Your task to perform on an android device: Open calendar and show me the second week of next month Image 0: 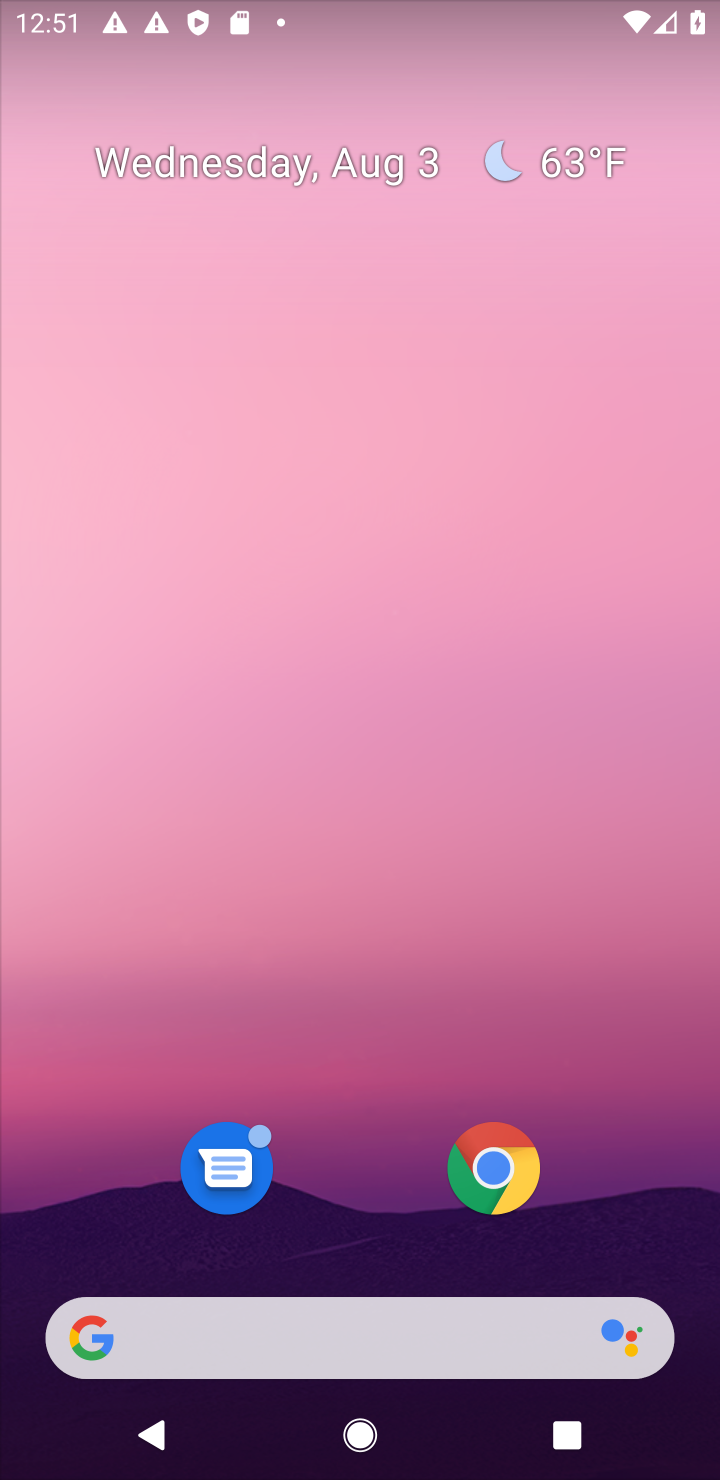
Step 0: press home button
Your task to perform on an android device: Open calendar and show me the second week of next month Image 1: 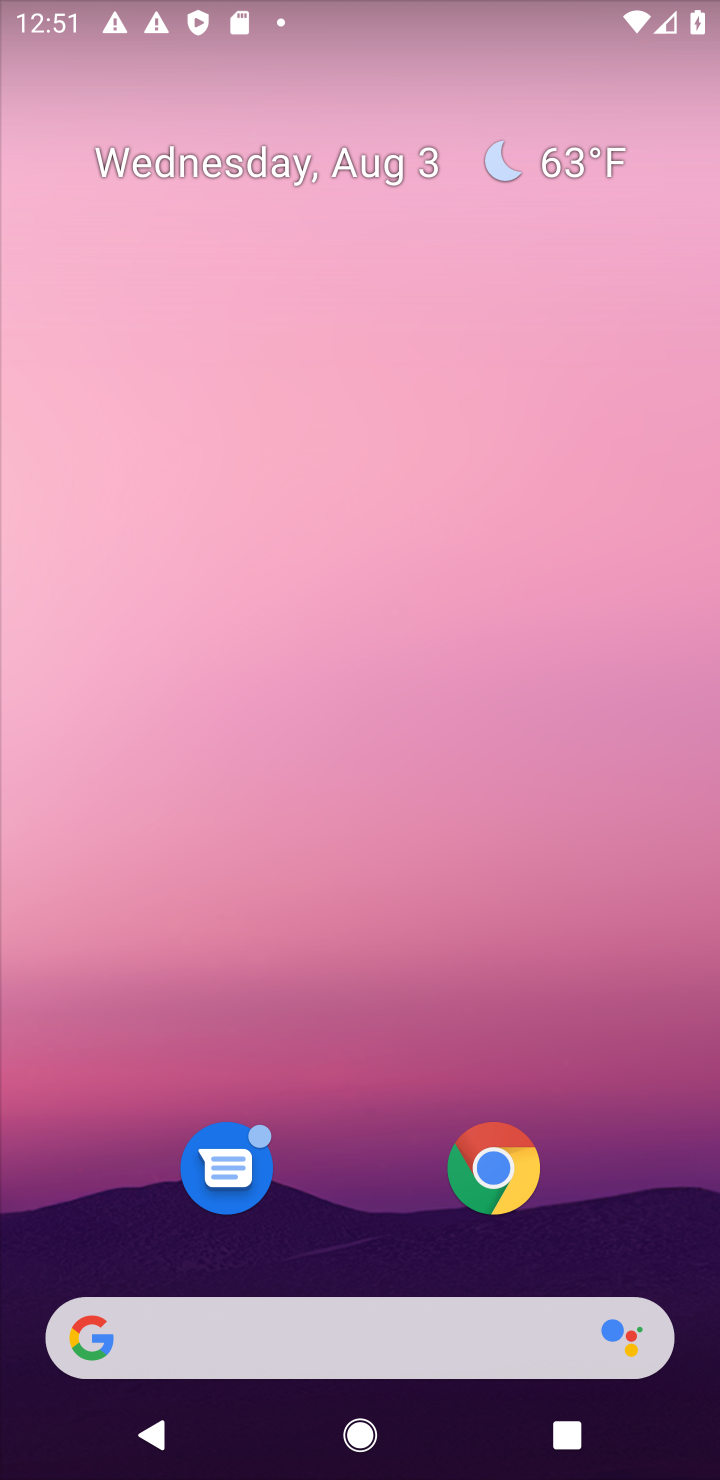
Step 1: drag from (371, 1148) to (442, 53)
Your task to perform on an android device: Open calendar and show me the second week of next month Image 2: 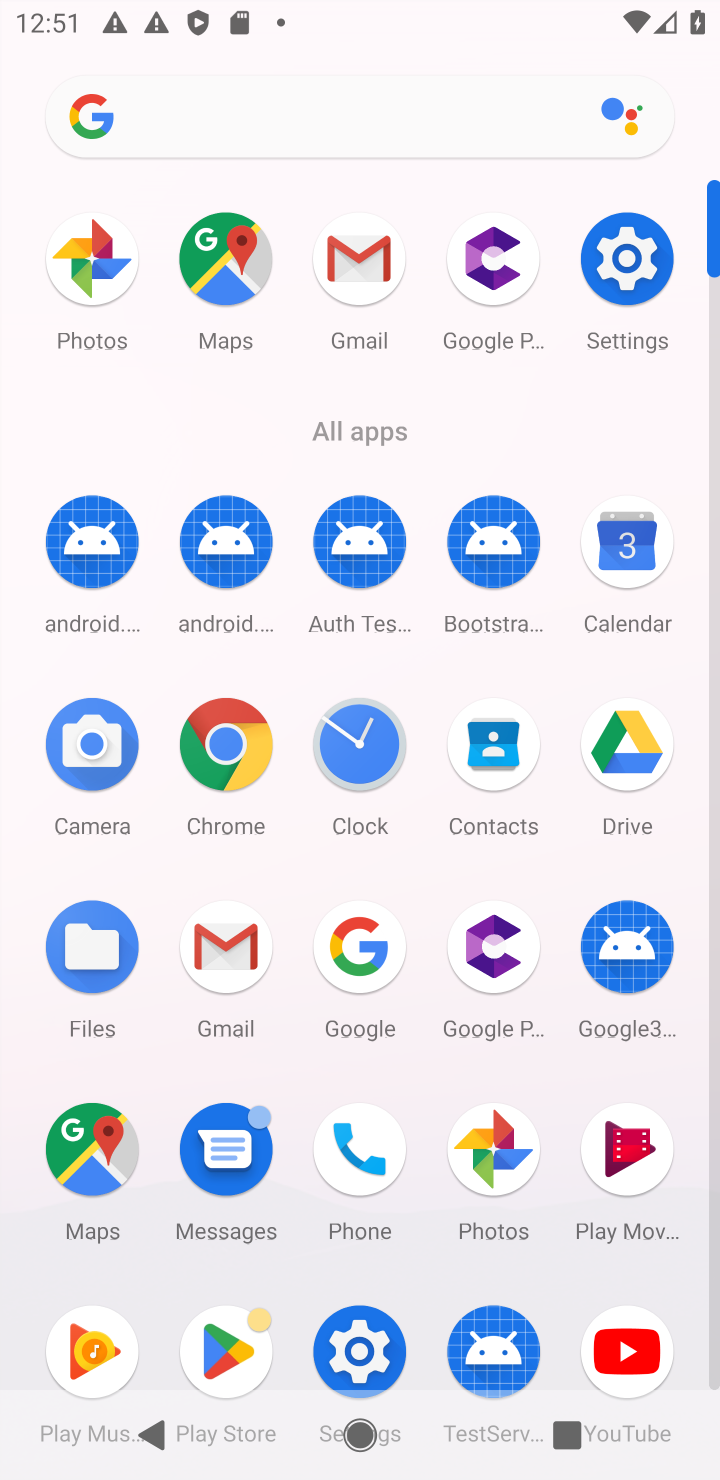
Step 2: click (647, 524)
Your task to perform on an android device: Open calendar and show me the second week of next month Image 3: 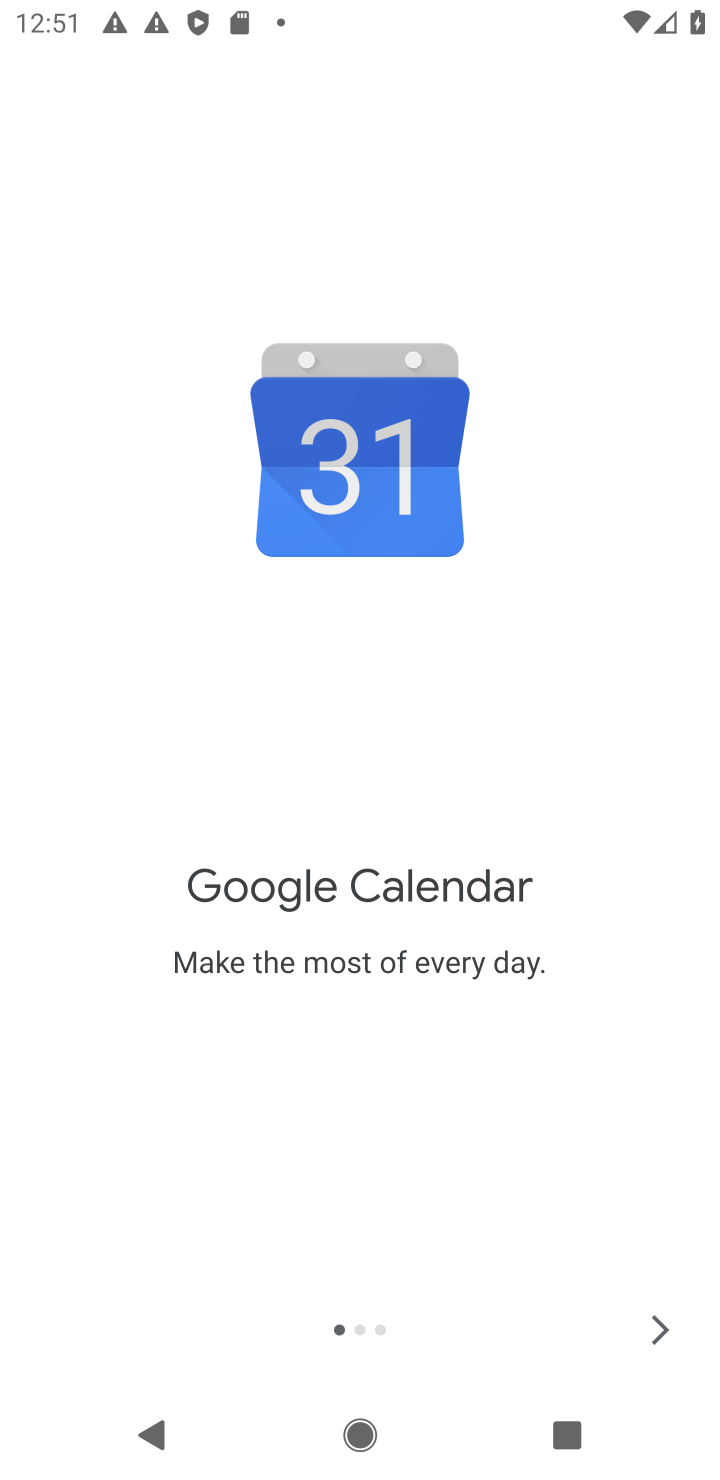
Step 3: click (676, 1342)
Your task to perform on an android device: Open calendar and show me the second week of next month Image 4: 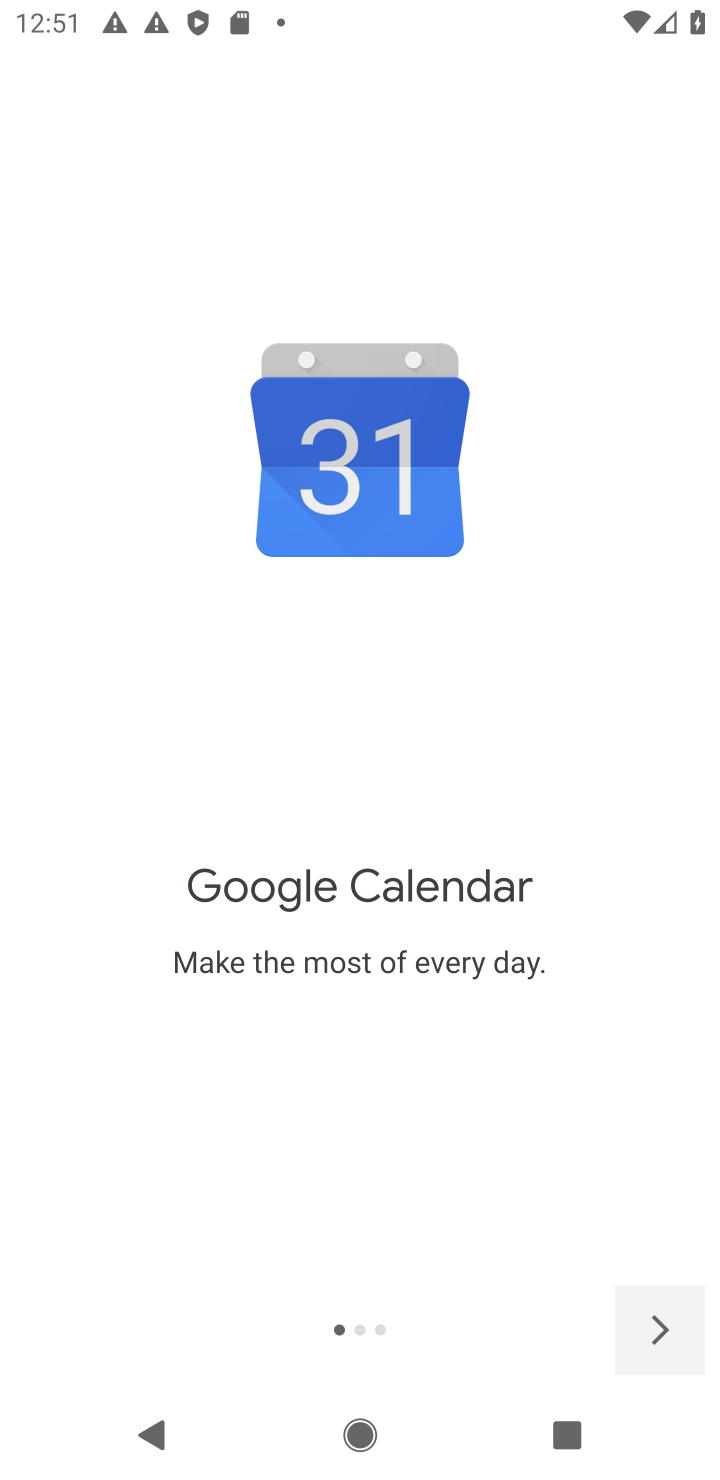
Step 4: click (676, 1342)
Your task to perform on an android device: Open calendar and show me the second week of next month Image 5: 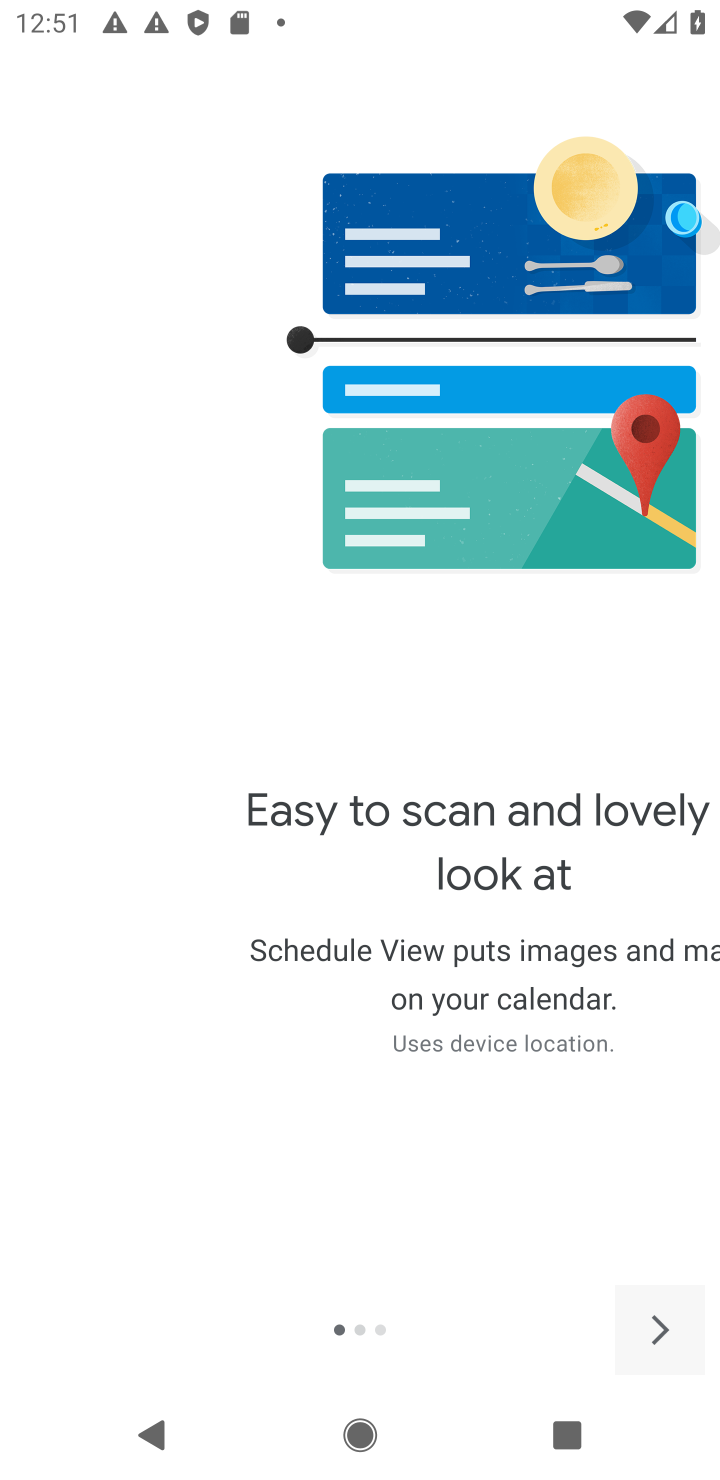
Step 5: click (676, 1342)
Your task to perform on an android device: Open calendar and show me the second week of next month Image 6: 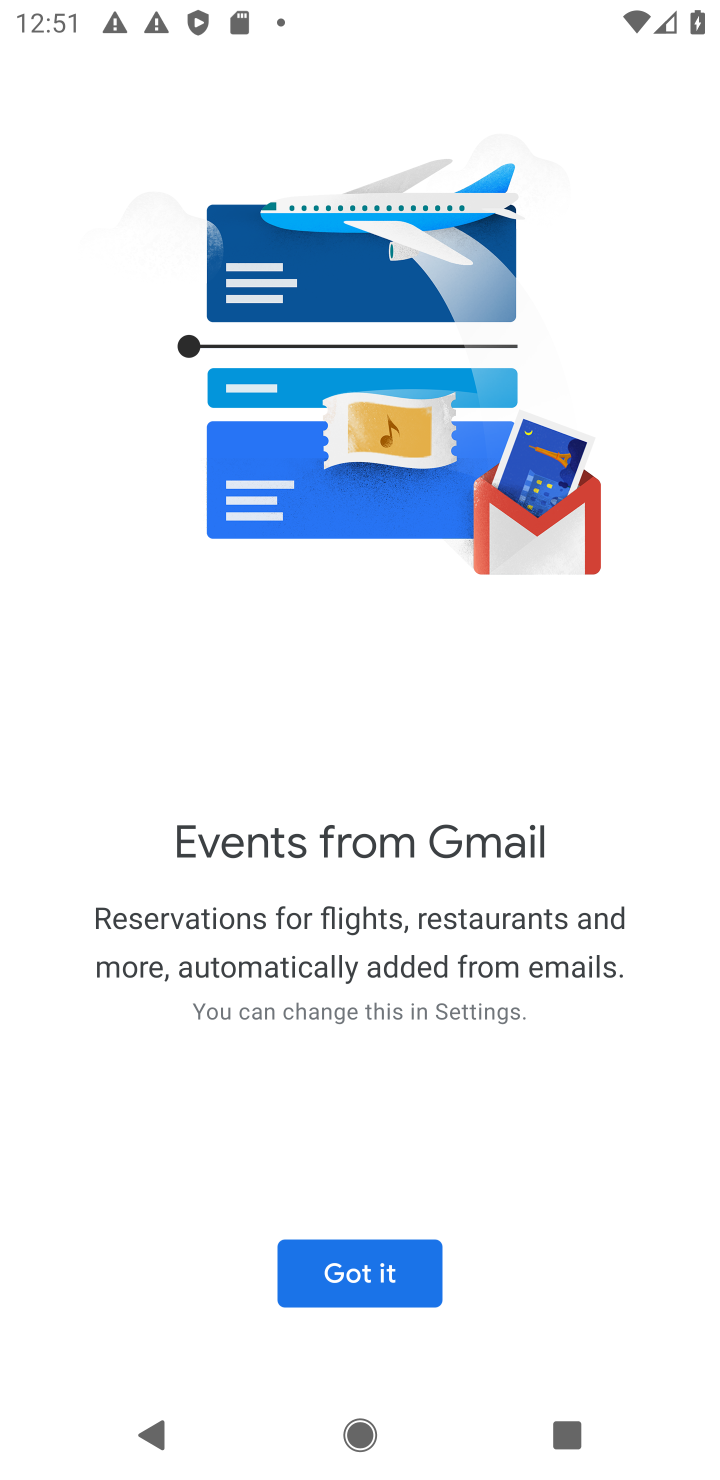
Step 6: click (351, 1284)
Your task to perform on an android device: Open calendar and show me the second week of next month Image 7: 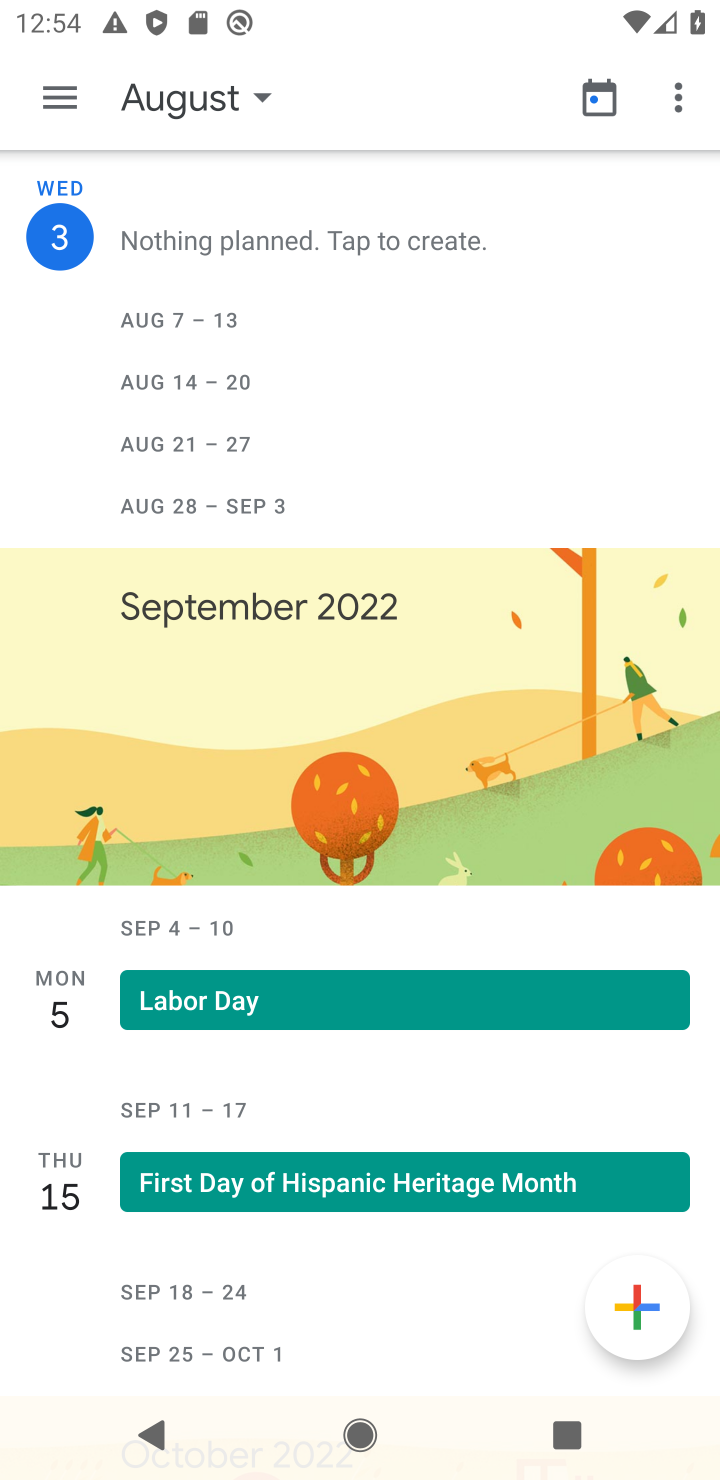
Step 7: click (251, 106)
Your task to perform on an android device: Open calendar and show me the second week of next month Image 8: 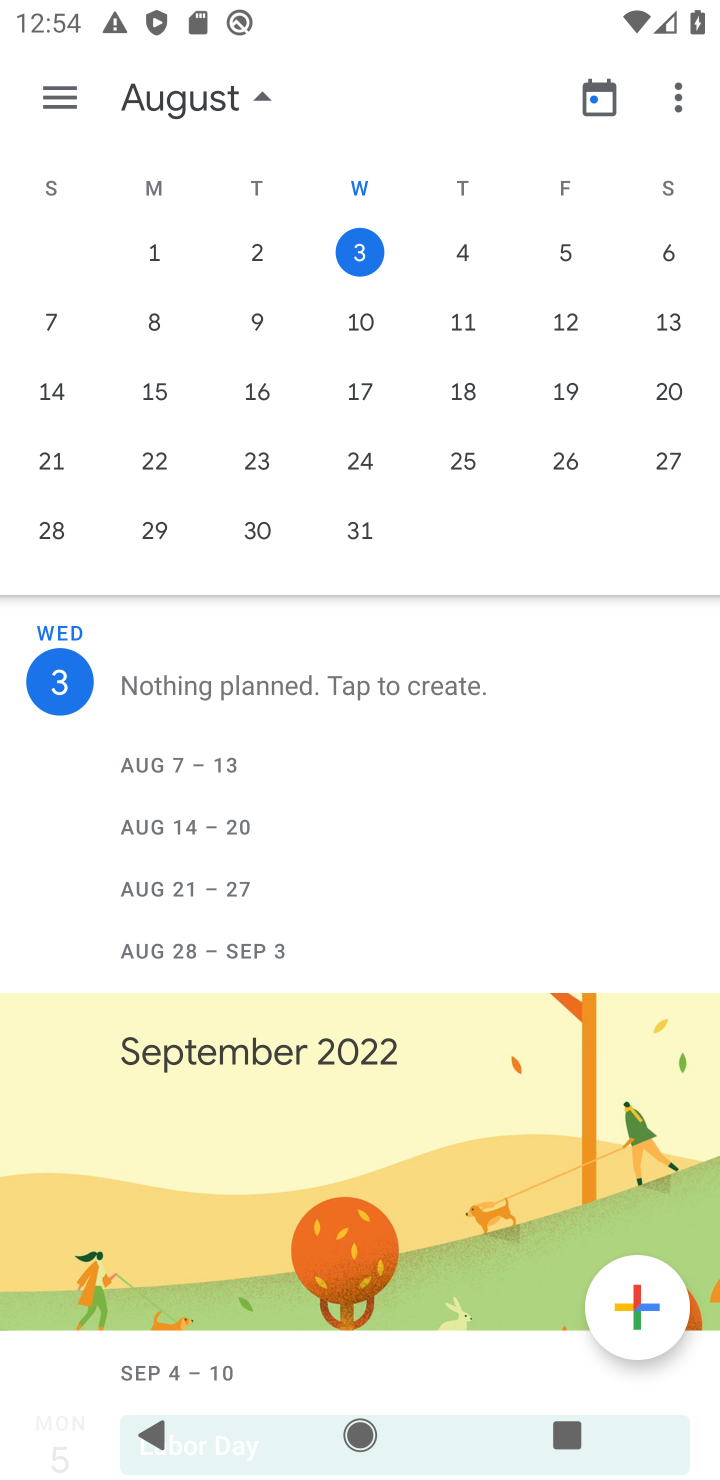
Step 8: drag from (473, 448) to (0, 393)
Your task to perform on an android device: Open calendar and show me the second week of next month Image 9: 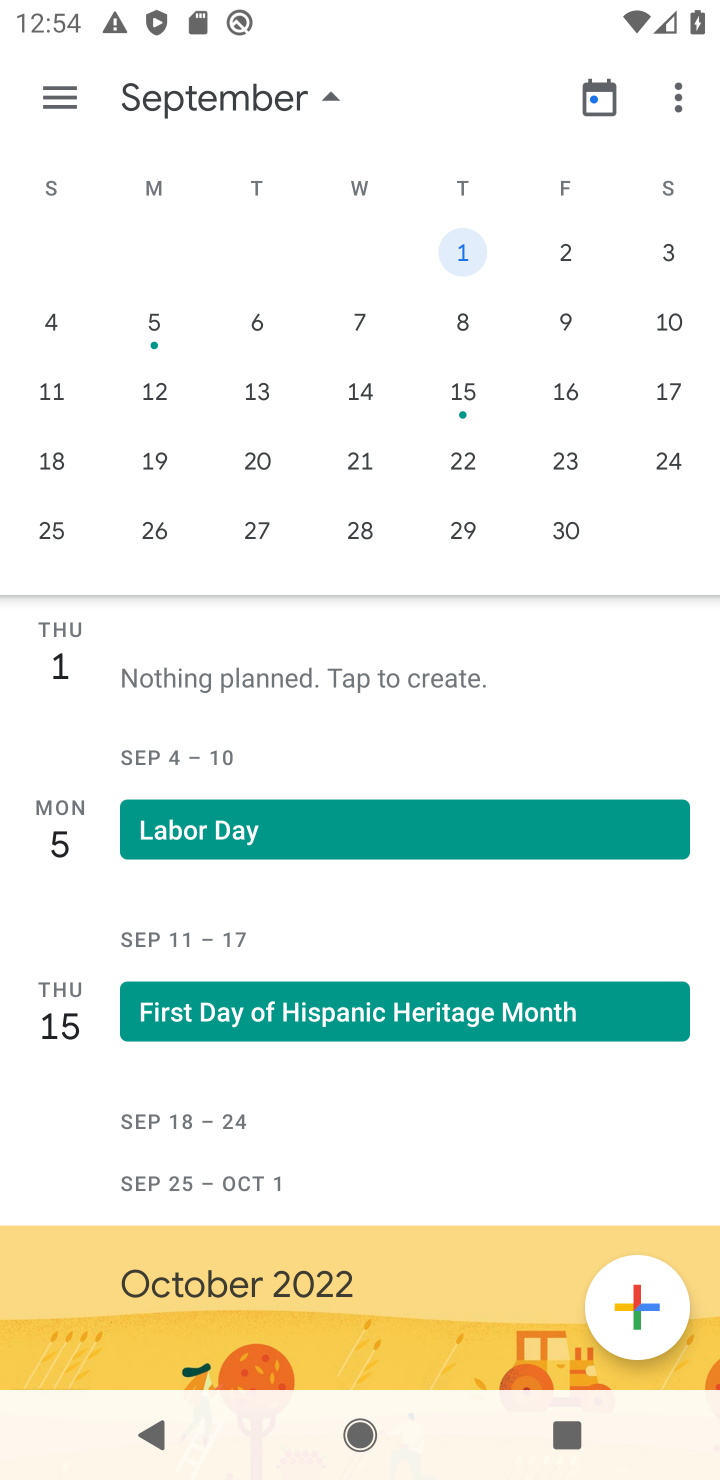
Step 9: click (474, 323)
Your task to perform on an android device: Open calendar and show me the second week of next month Image 10: 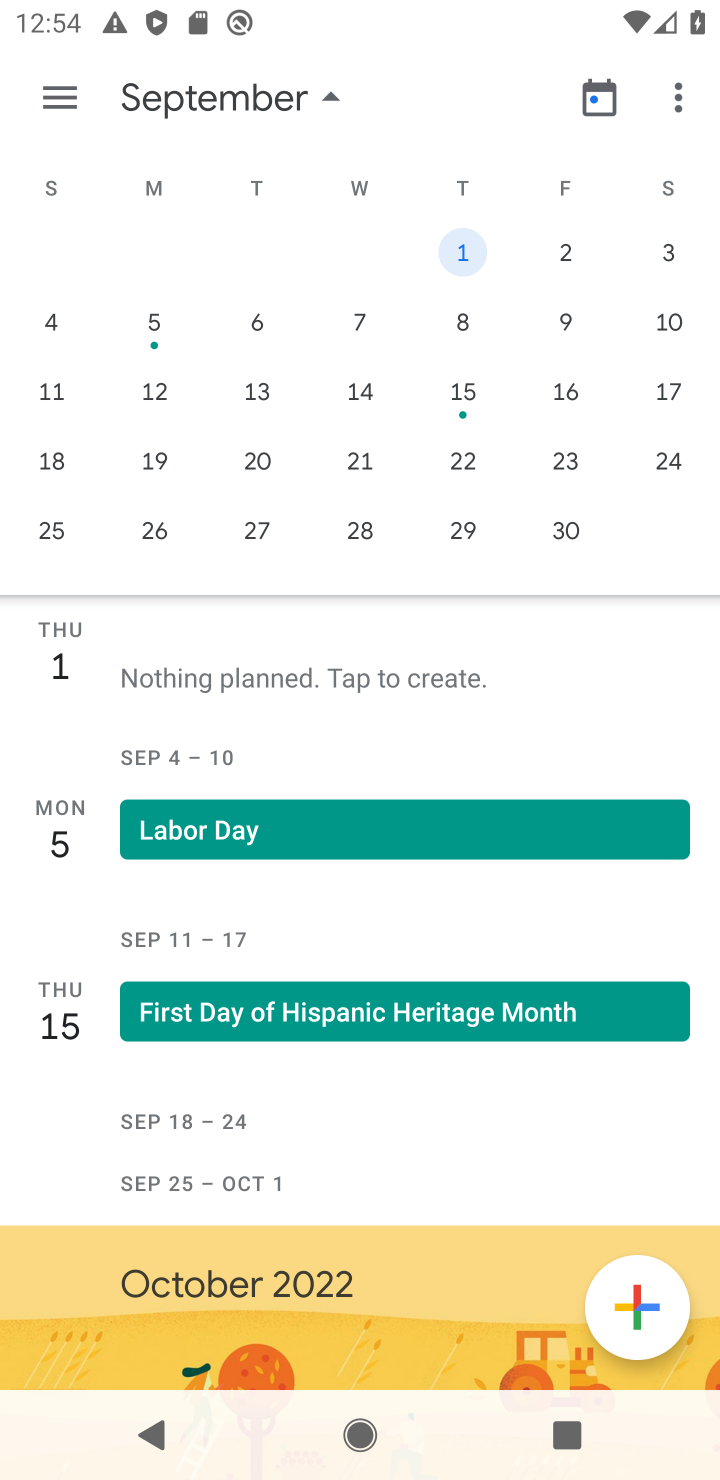
Step 10: click (145, 332)
Your task to perform on an android device: Open calendar and show me the second week of next month Image 11: 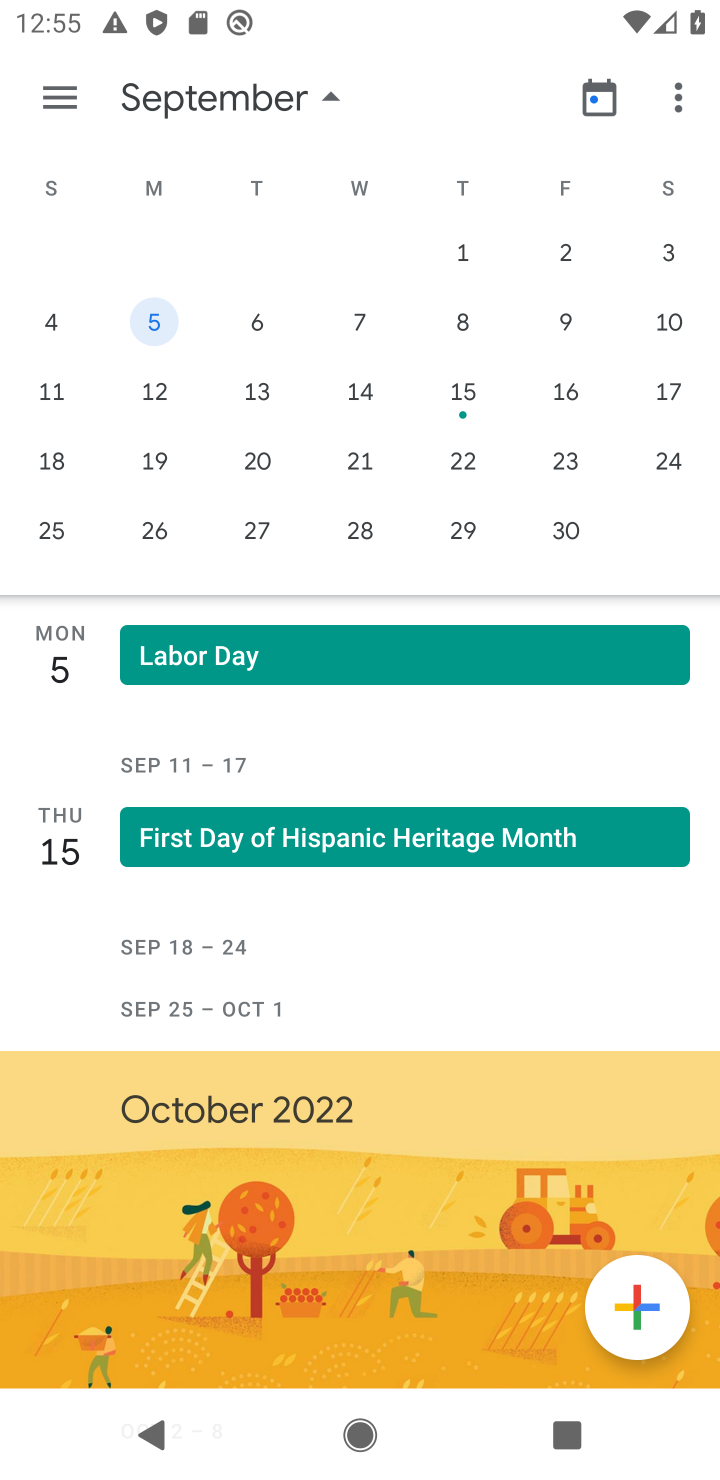
Step 11: click (245, 1130)
Your task to perform on an android device: Open calendar and show me the second week of next month Image 12: 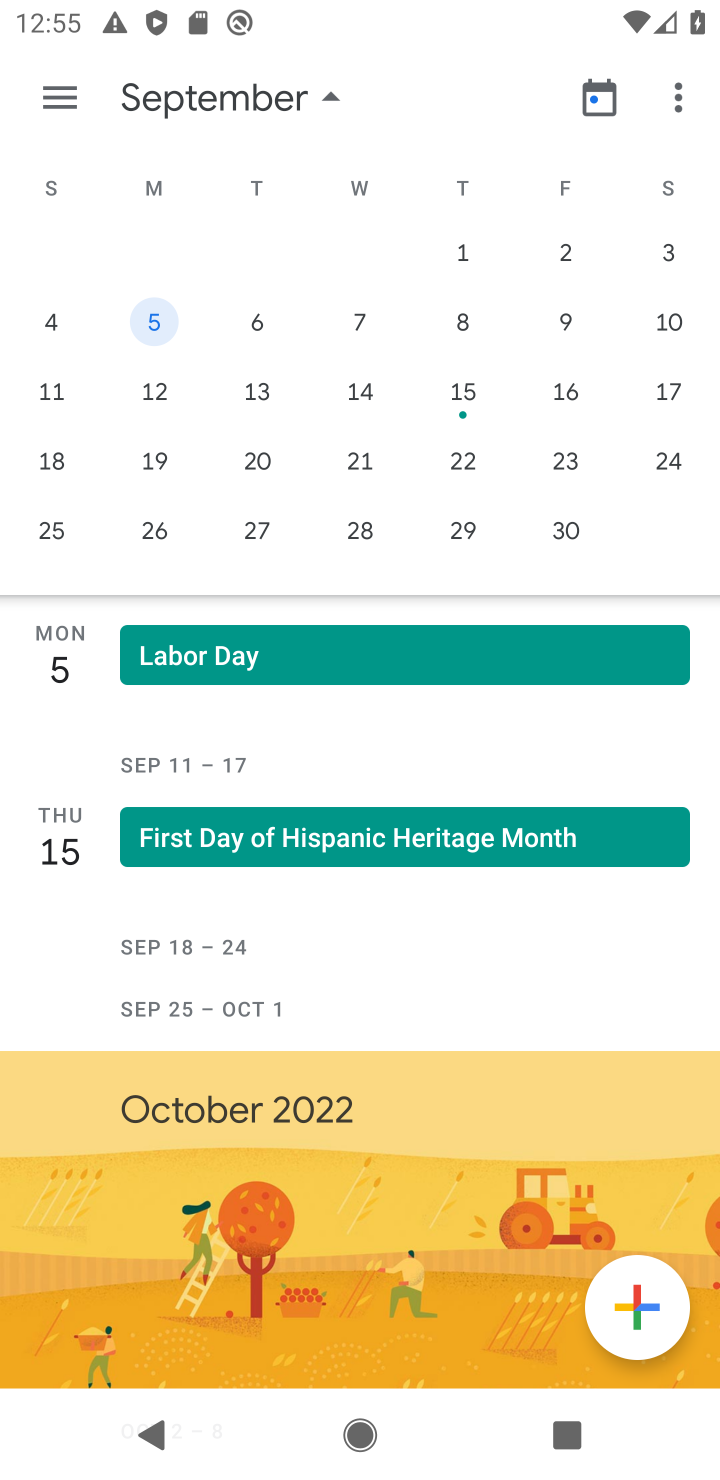
Step 12: click (487, 309)
Your task to perform on an android device: Open calendar and show me the second week of next month Image 13: 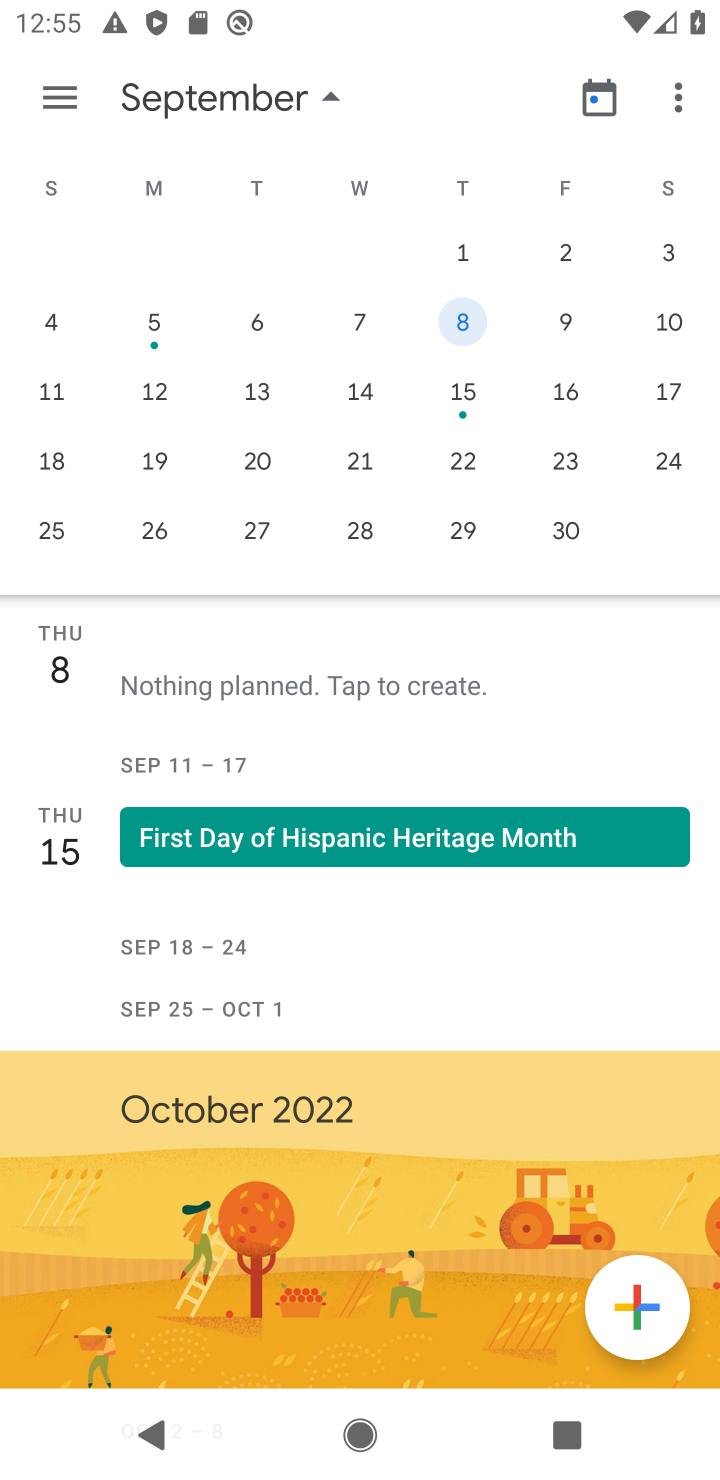
Step 13: task complete